Your task to perform on an android device: Open calendar and show me the third week of next month Image 0: 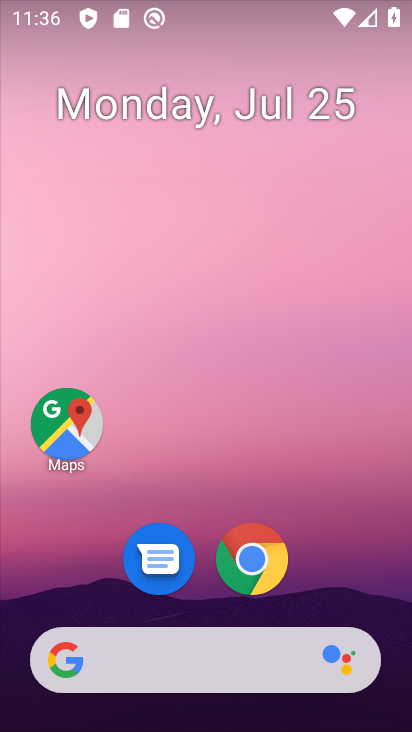
Step 0: drag from (163, 540) to (207, 16)
Your task to perform on an android device: Open calendar and show me the third week of next month Image 1: 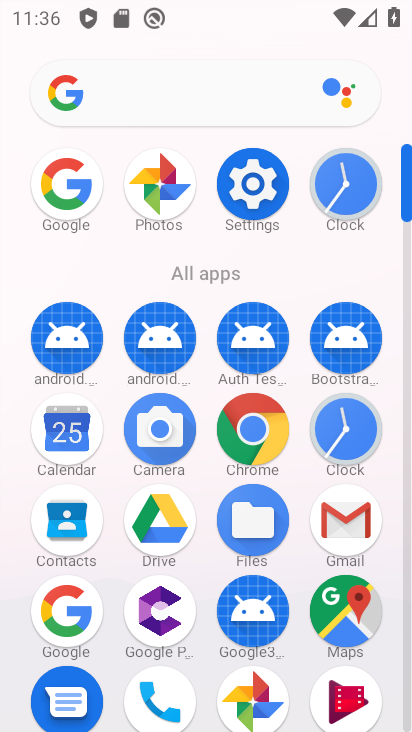
Step 1: click (66, 433)
Your task to perform on an android device: Open calendar and show me the third week of next month Image 2: 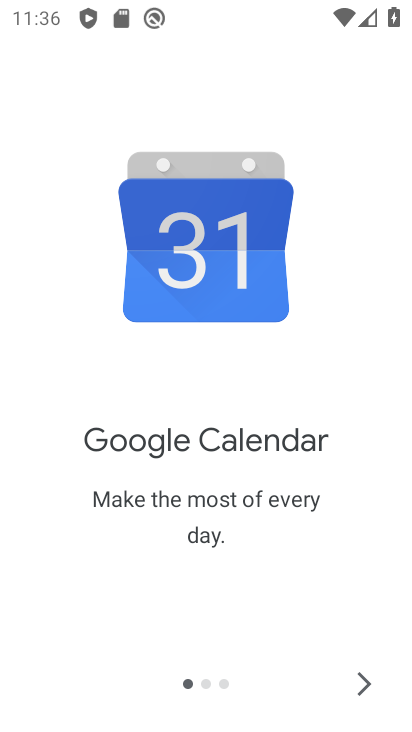
Step 2: click (350, 691)
Your task to perform on an android device: Open calendar and show me the third week of next month Image 3: 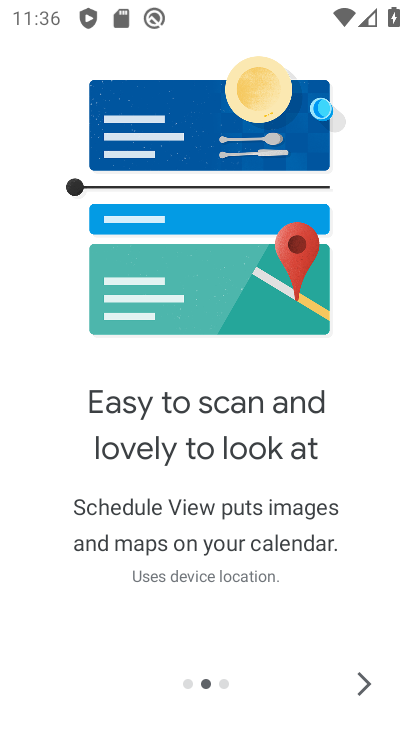
Step 3: click (350, 686)
Your task to perform on an android device: Open calendar and show me the third week of next month Image 4: 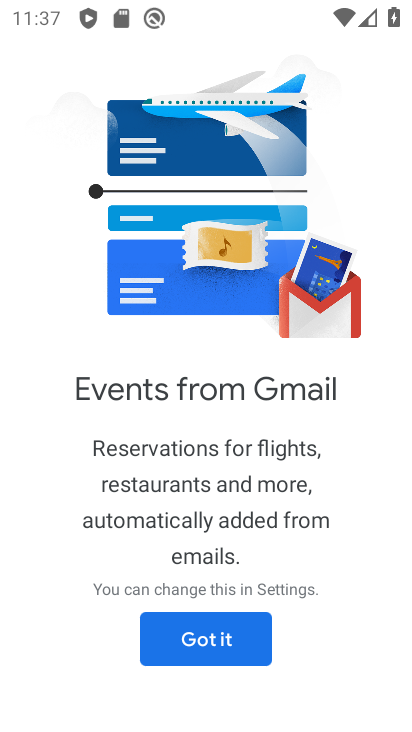
Step 4: click (194, 649)
Your task to perform on an android device: Open calendar and show me the third week of next month Image 5: 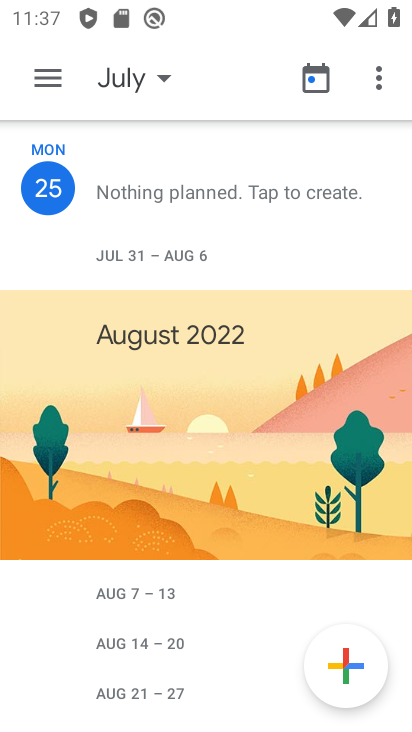
Step 5: click (159, 95)
Your task to perform on an android device: Open calendar and show me the third week of next month Image 6: 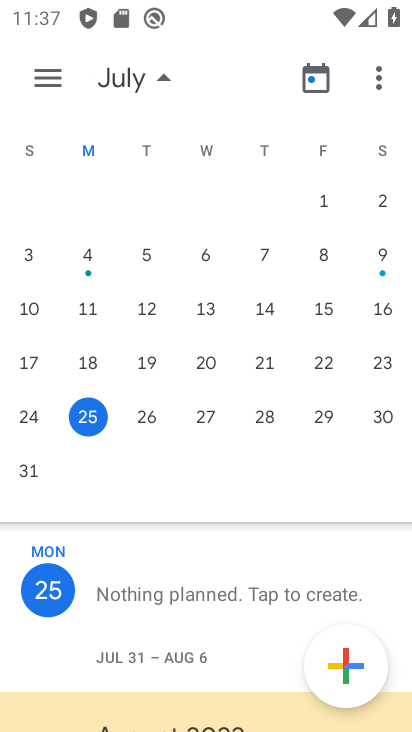
Step 6: drag from (381, 361) to (42, 368)
Your task to perform on an android device: Open calendar and show me the third week of next month Image 7: 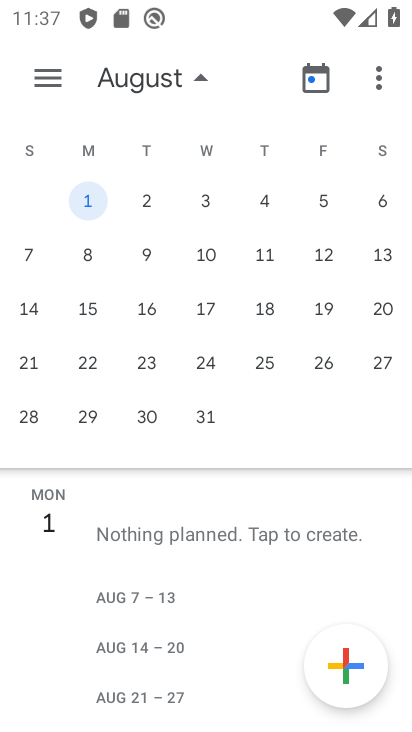
Step 7: click (90, 308)
Your task to perform on an android device: Open calendar and show me the third week of next month Image 8: 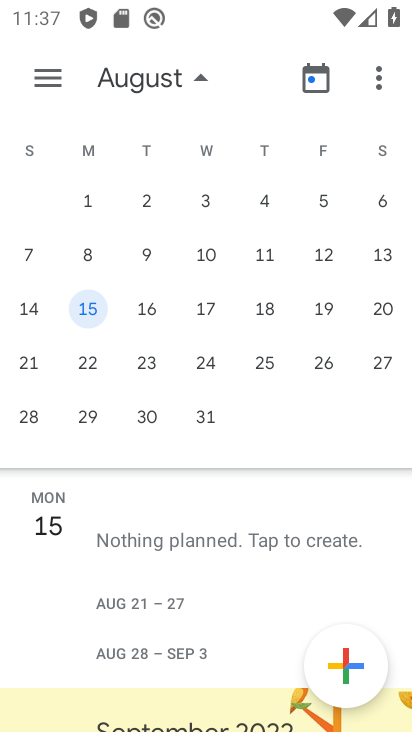
Step 8: task complete